Your task to perform on an android device: Open Google Image 0: 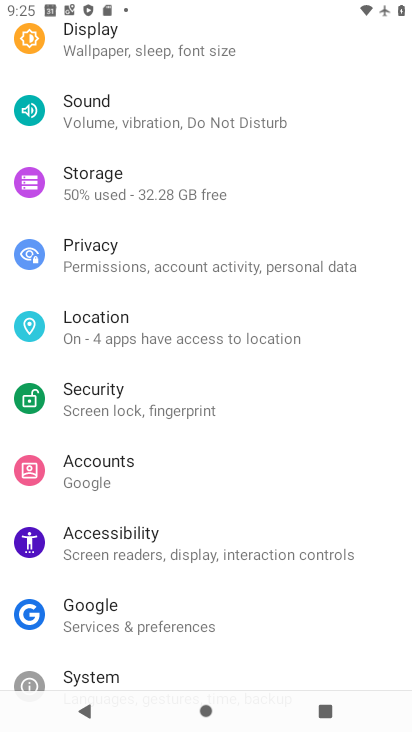
Step 0: press home button
Your task to perform on an android device: Open Google Image 1: 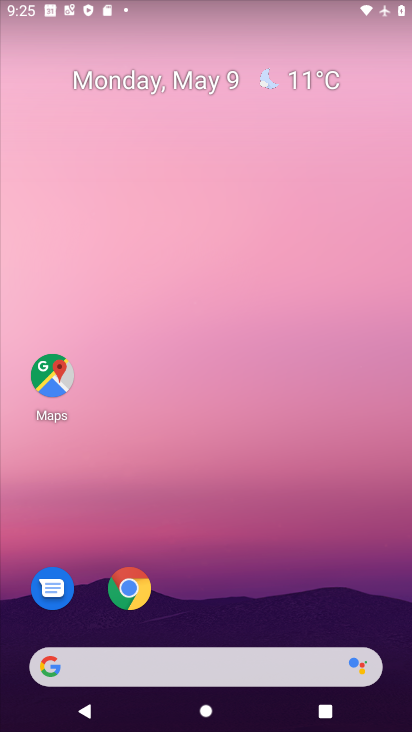
Step 1: drag from (163, 664) to (290, 103)
Your task to perform on an android device: Open Google Image 2: 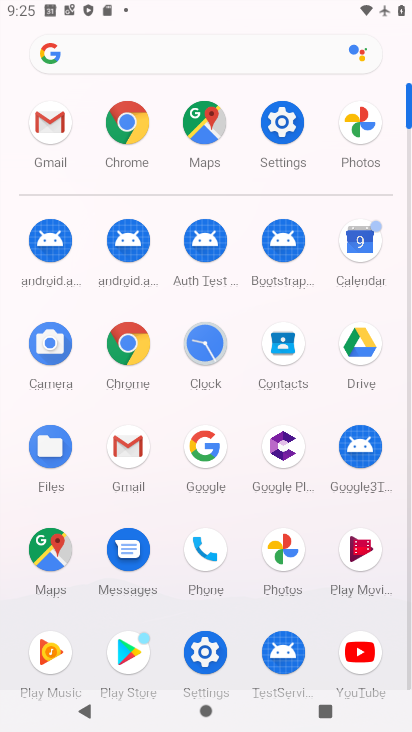
Step 2: click (208, 454)
Your task to perform on an android device: Open Google Image 3: 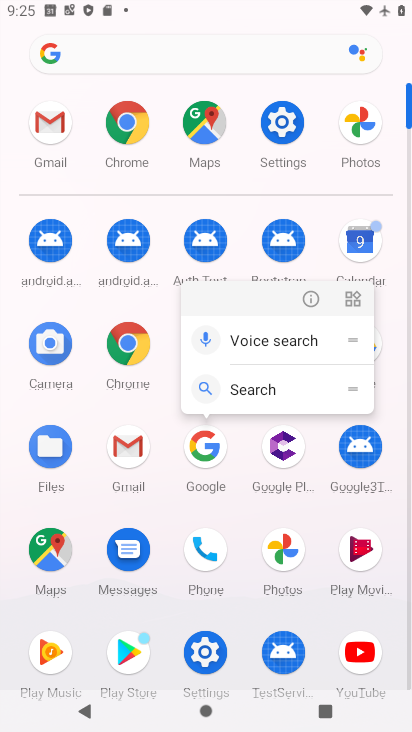
Step 3: click (204, 449)
Your task to perform on an android device: Open Google Image 4: 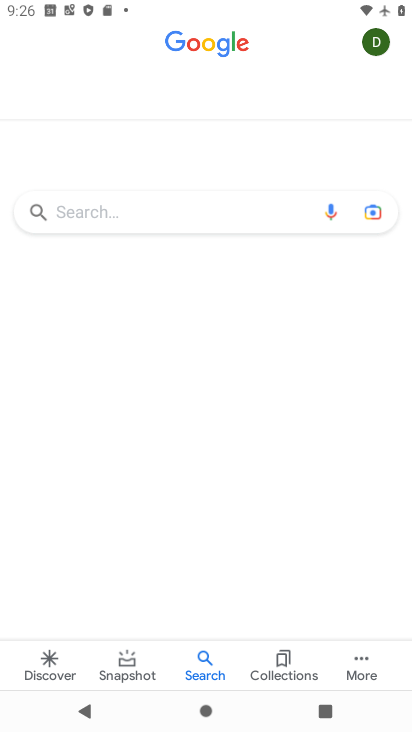
Step 4: task complete